Your task to perform on an android device: turn off notifications settings in the gmail app Image 0: 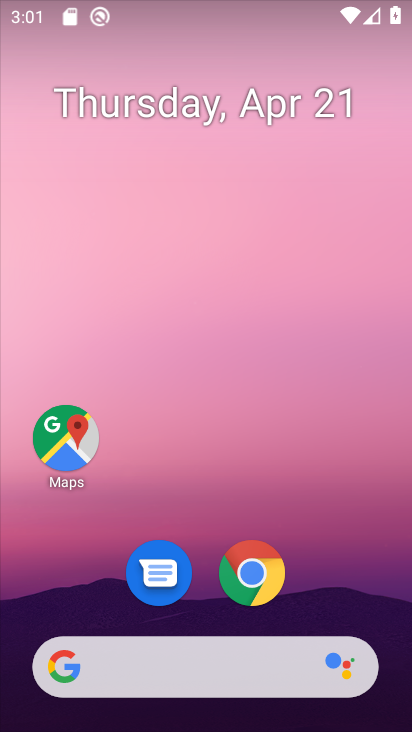
Step 0: drag from (241, 440) to (299, 183)
Your task to perform on an android device: turn off notifications settings in the gmail app Image 1: 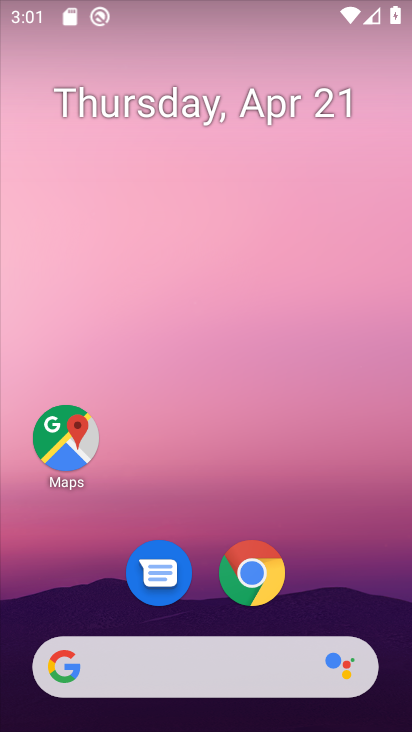
Step 1: drag from (193, 481) to (269, 94)
Your task to perform on an android device: turn off notifications settings in the gmail app Image 2: 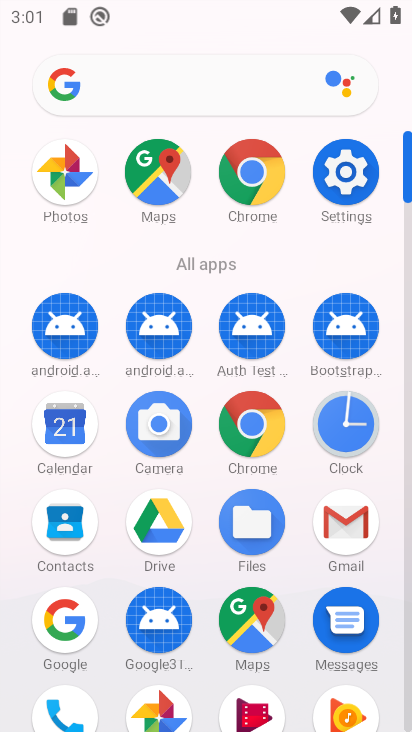
Step 2: click (339, 529)
Your task to perform on an android device: turn off notifications settings in the gmail app Image 3: 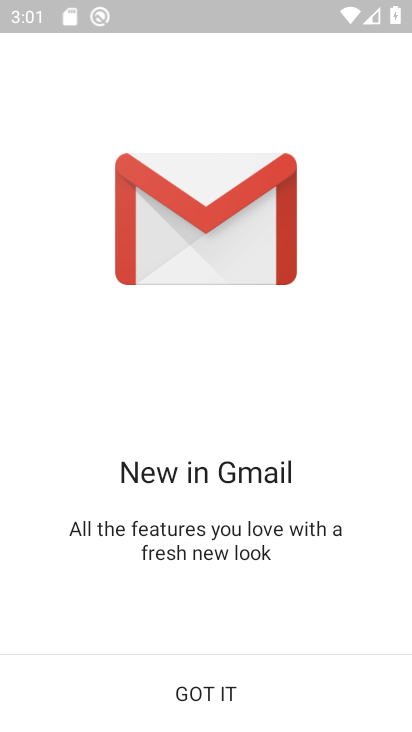
Step 3: click (232, 701)
Your task to perform on an android device: turn off notifications settings in the gmail app Image 4: 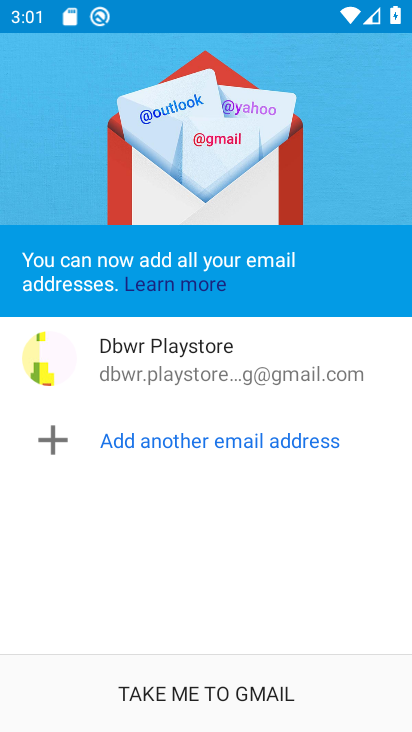
Step 4: click (250, 696)
Your task to perform on an android device: turn off notifications settings in the gmail app Image 5: 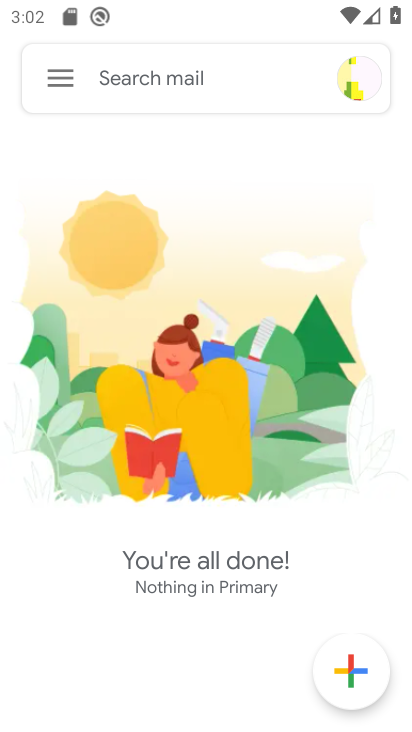
Step 5: click (67, 93)
Your task to perform on an android device: turn off notifications settings in the gmail app Image 6: 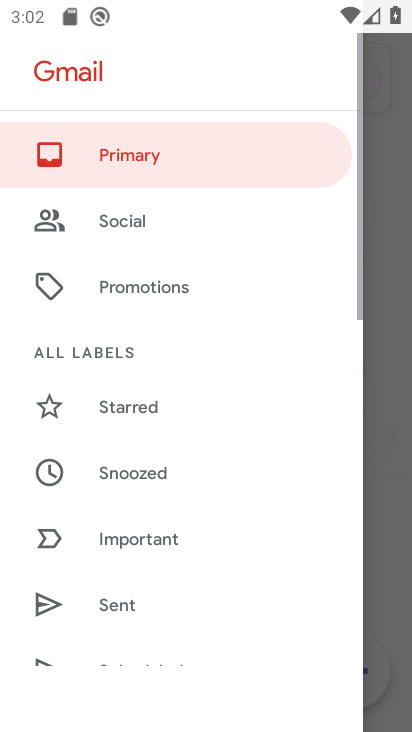
Step 6: drag from (163, 615) to (318, 203)
Your task to perform on an android device: turn off notifications settings in the gmail app Image 7: 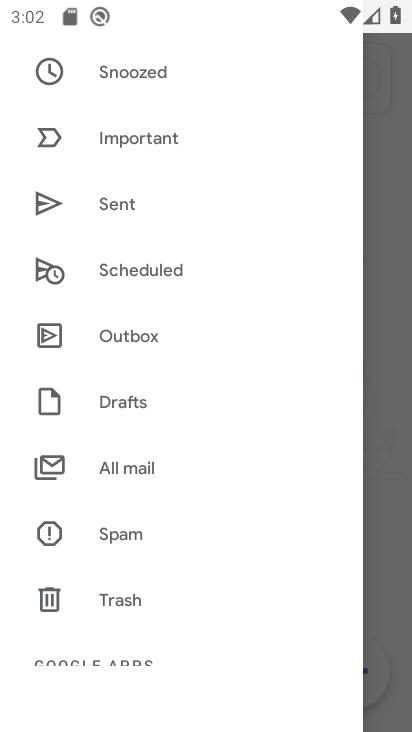
Step 7: drag from (237, 662) to (388, 265)
Your task to perform on an android device: turn off notifications settings in the gmail app Image 8: 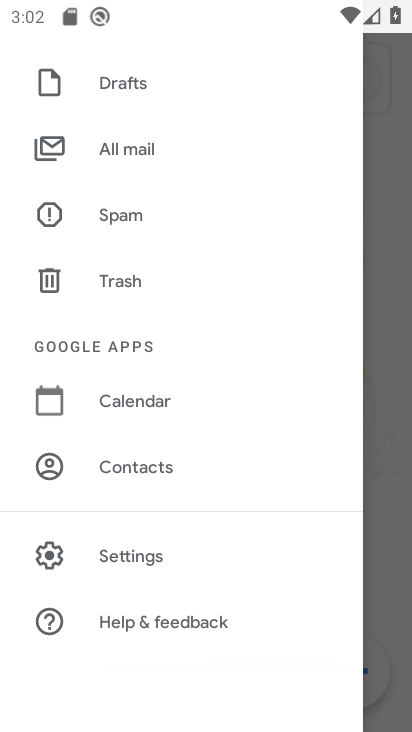
Step 8: click (259, 560)
Your task to perform on an android device: turn off notifications settings in the gmail app Image 9: 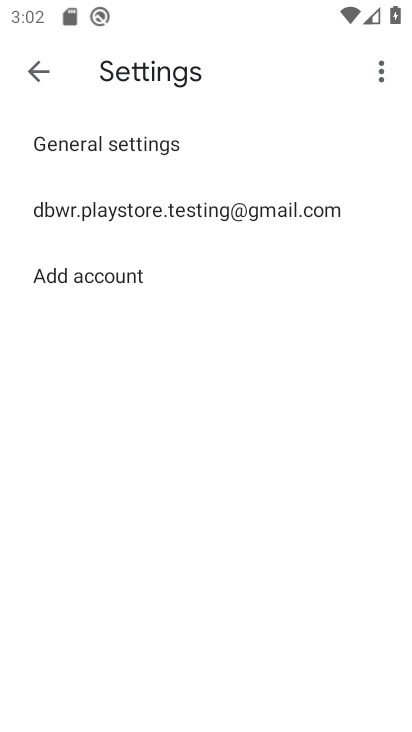
Step 9: click (259, 220)
Your task to perform on an android device: turn off notifications settings in the gmail app Image 10: 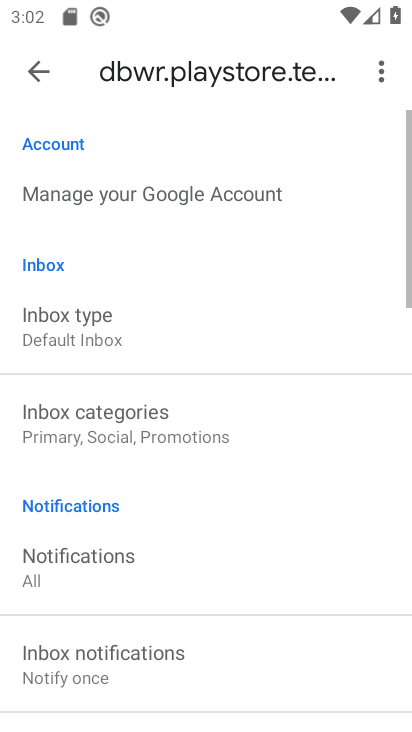
Step 10: drag from (176, 563) to (322, 190)
Your task to perform on an android device: turn off notifications settings in the gmail app Image 11: 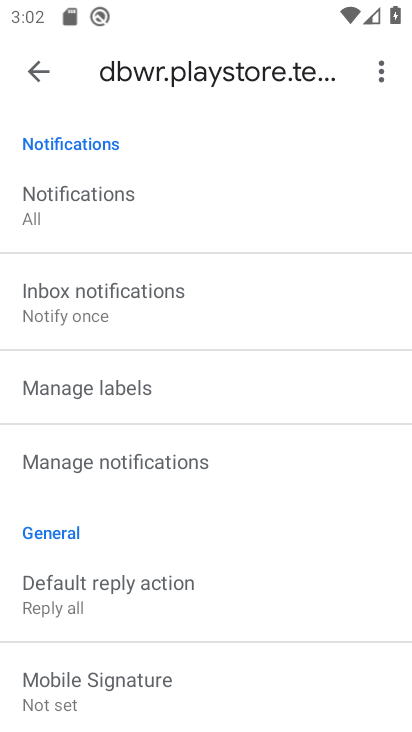
Step 11: click (217, 468)
Your task to perform on an android device: turn off notifications settings in the gmail app Image 12: 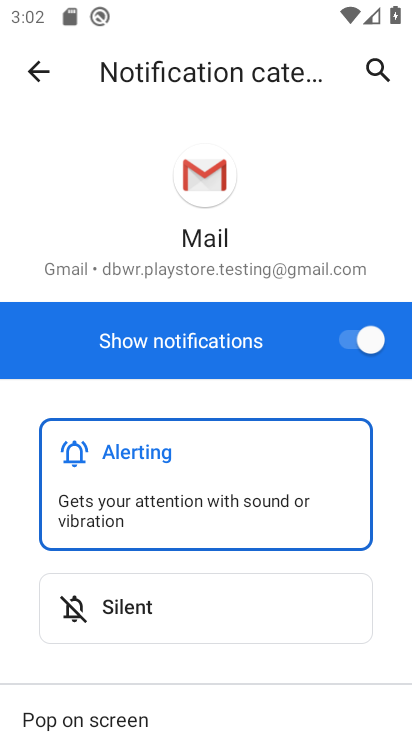
Step 12: click (351, 340)
Your task to perform on an android device: turn off notifications settings in the gmail app Image 13: 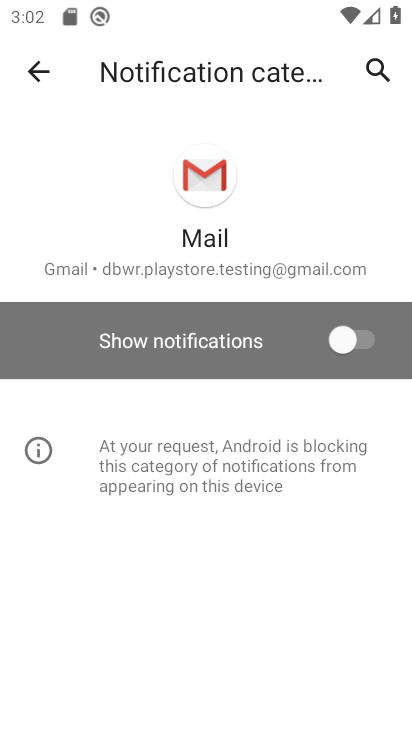
Step 13: task complete